Your task to perform on an android device: Open Google Maps Image 0: 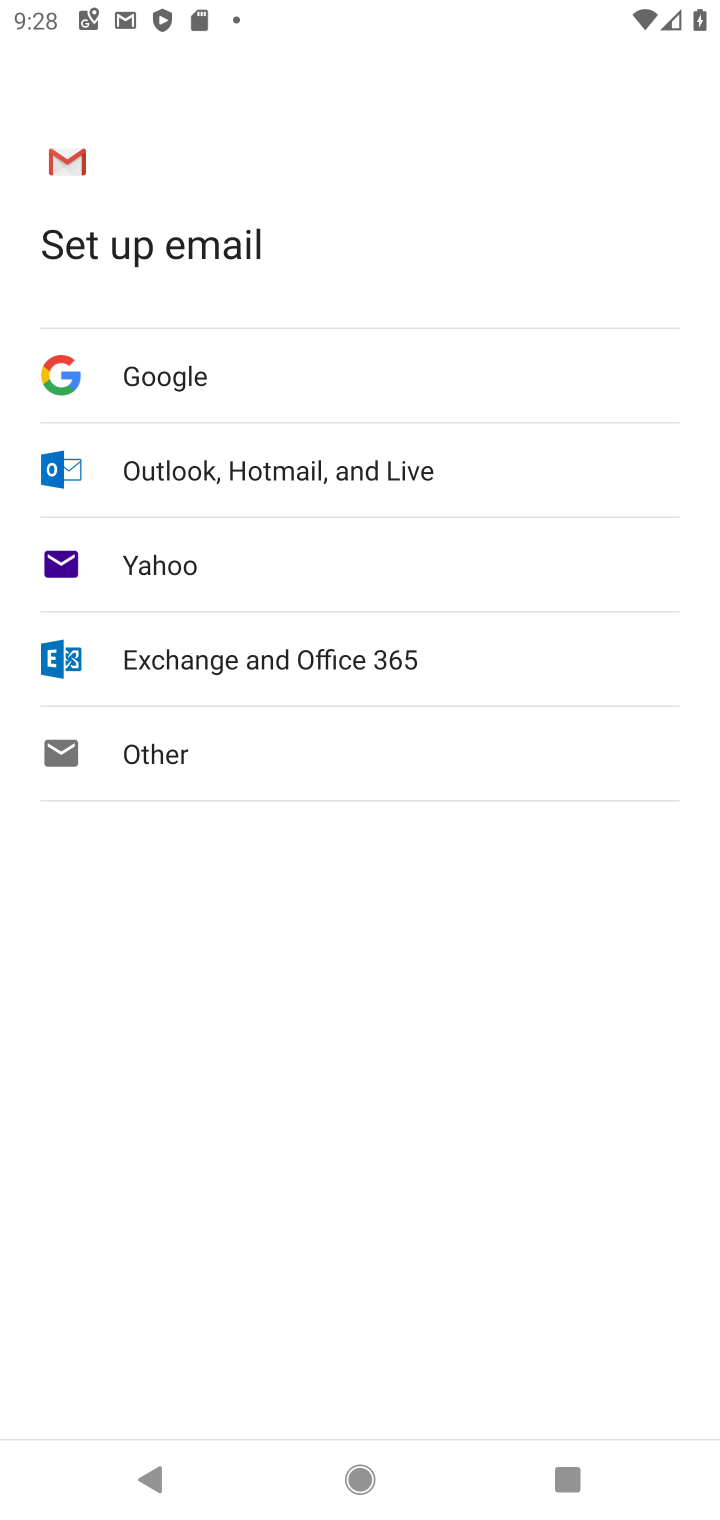
Step 0: press back button
Your task to perform on an android device: Open Google Maps Image 1: 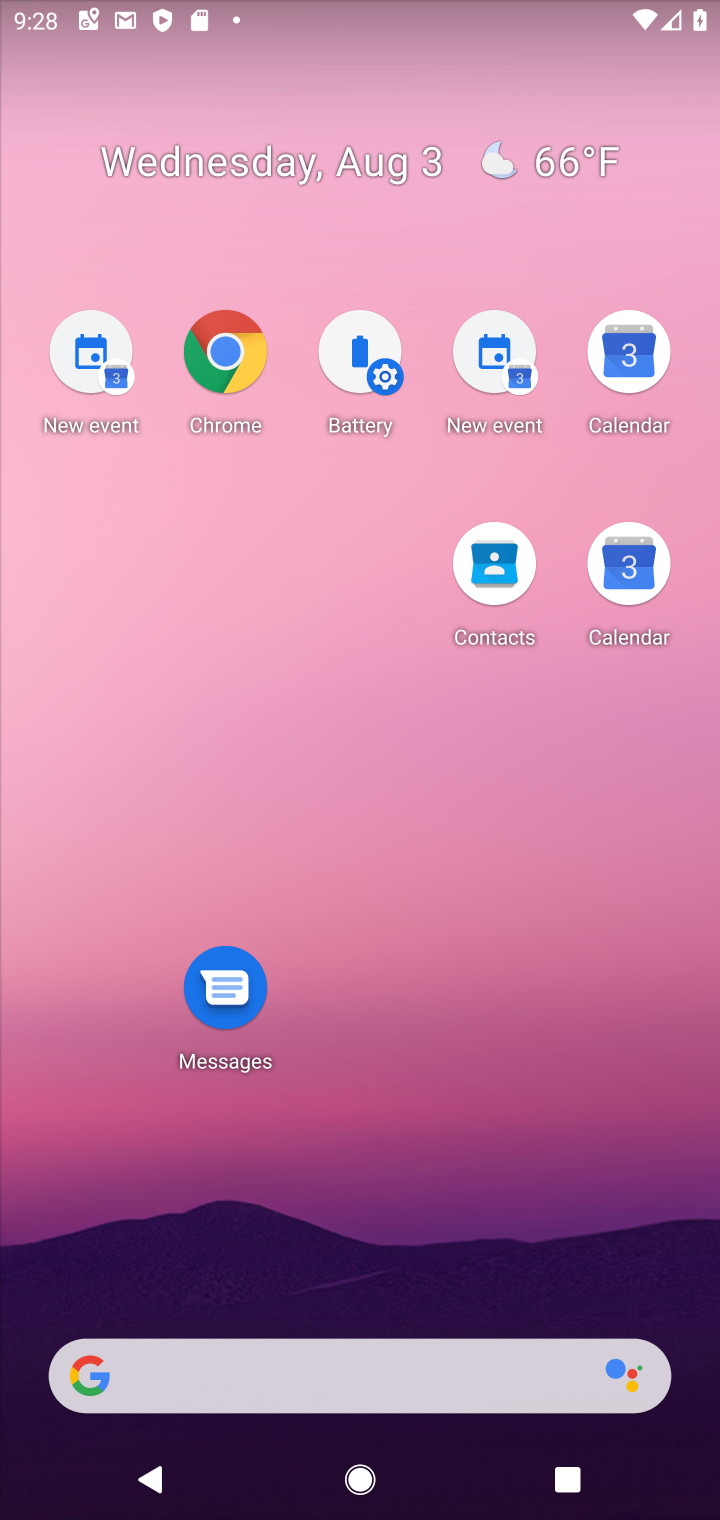
Step 1: drag from (380, 1369) to (296, 261)
Your task to perform on an android device: Open Google Maps Image 2: 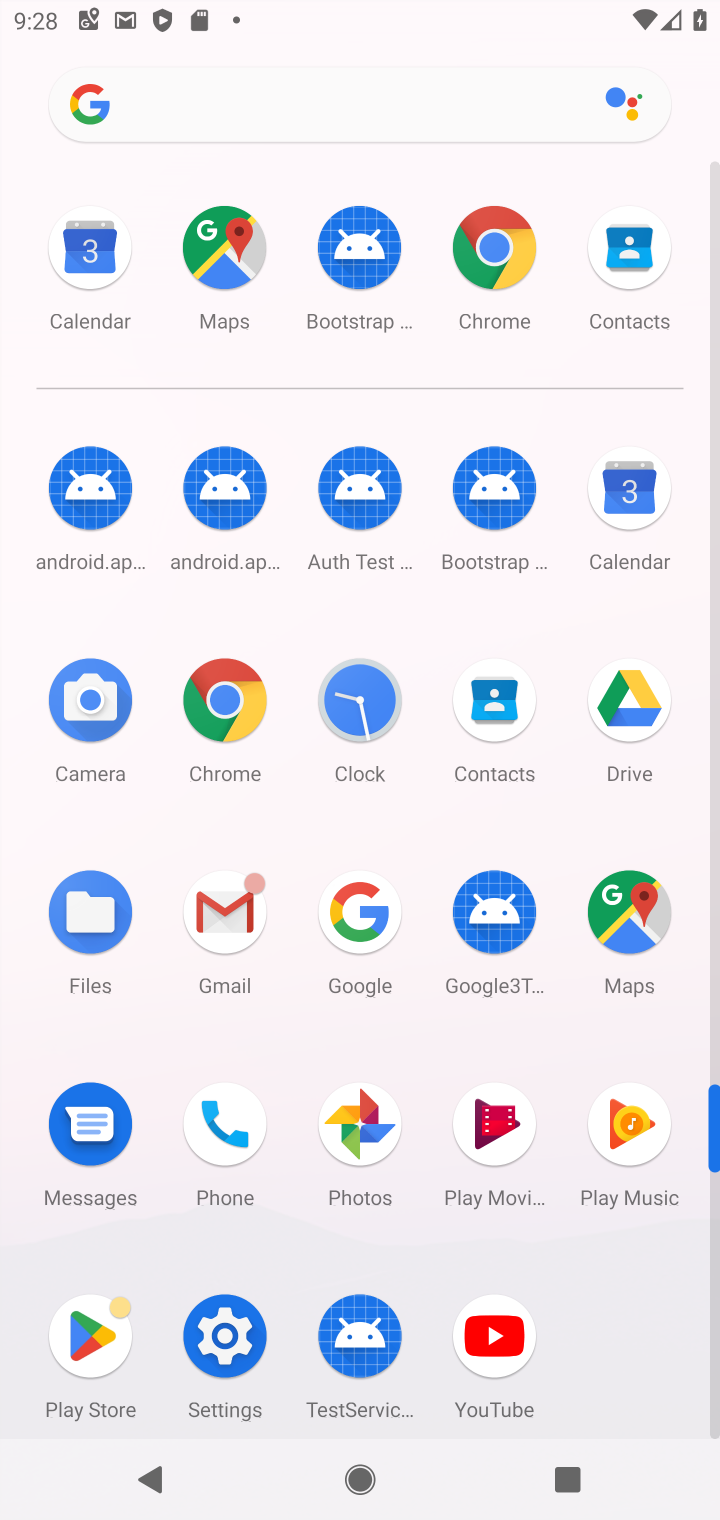
Step 2: drag from (236, 436) to (253, 11)
Your task to perform on an android device: Open Google Maps Image 3: 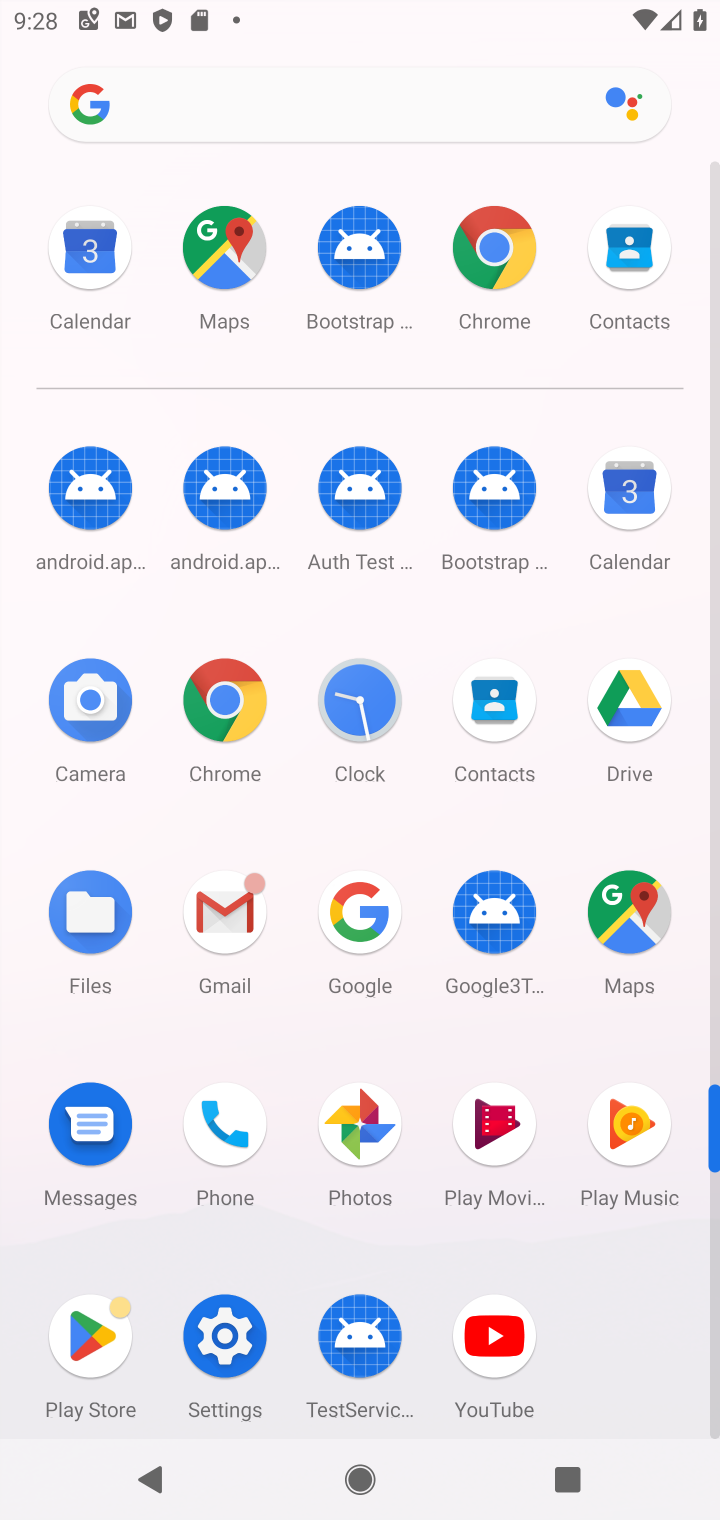
Step 3: click (599, 916)
Your task to perform on an android device: Open Google Maps Image 4: 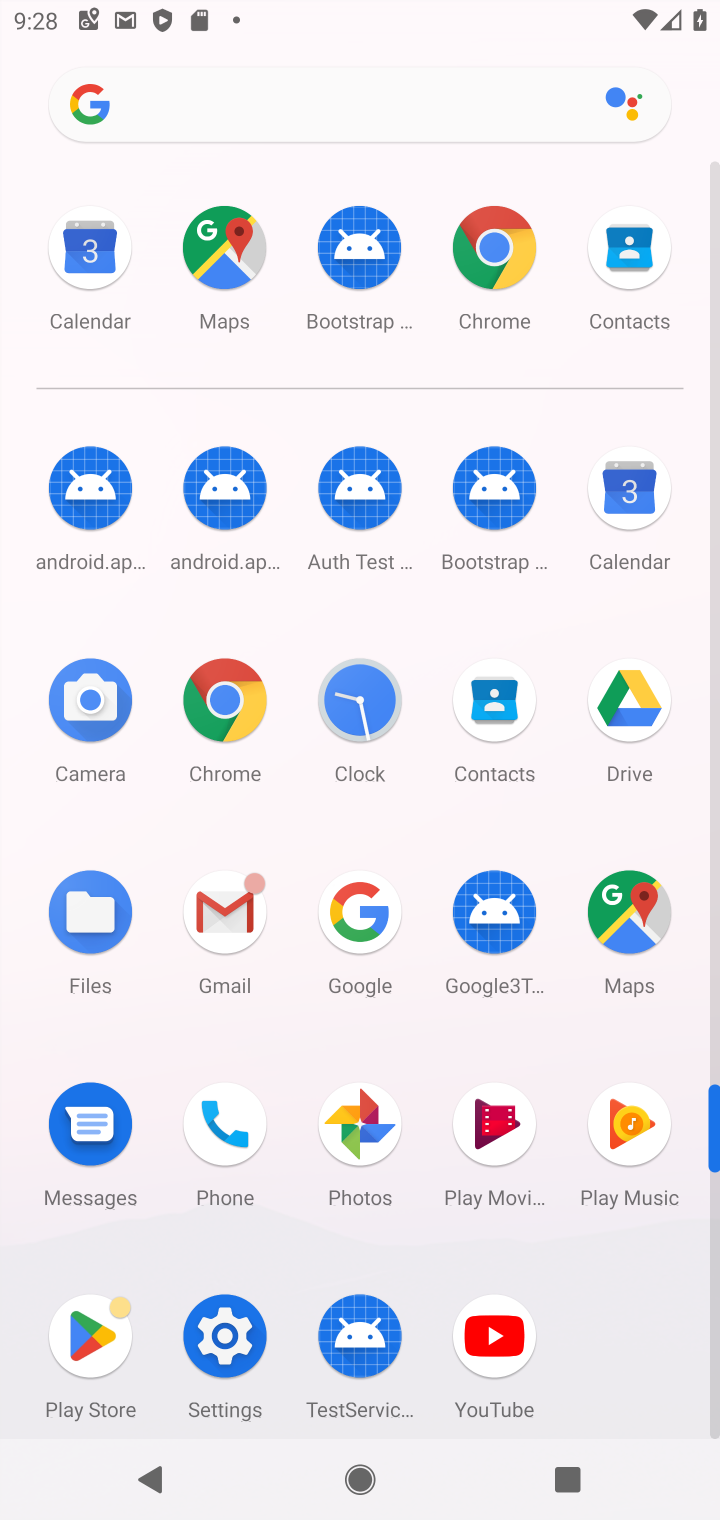
Step 4: click (599, 916)
Your task to perform on an android device: Open Google Maps Image 5: 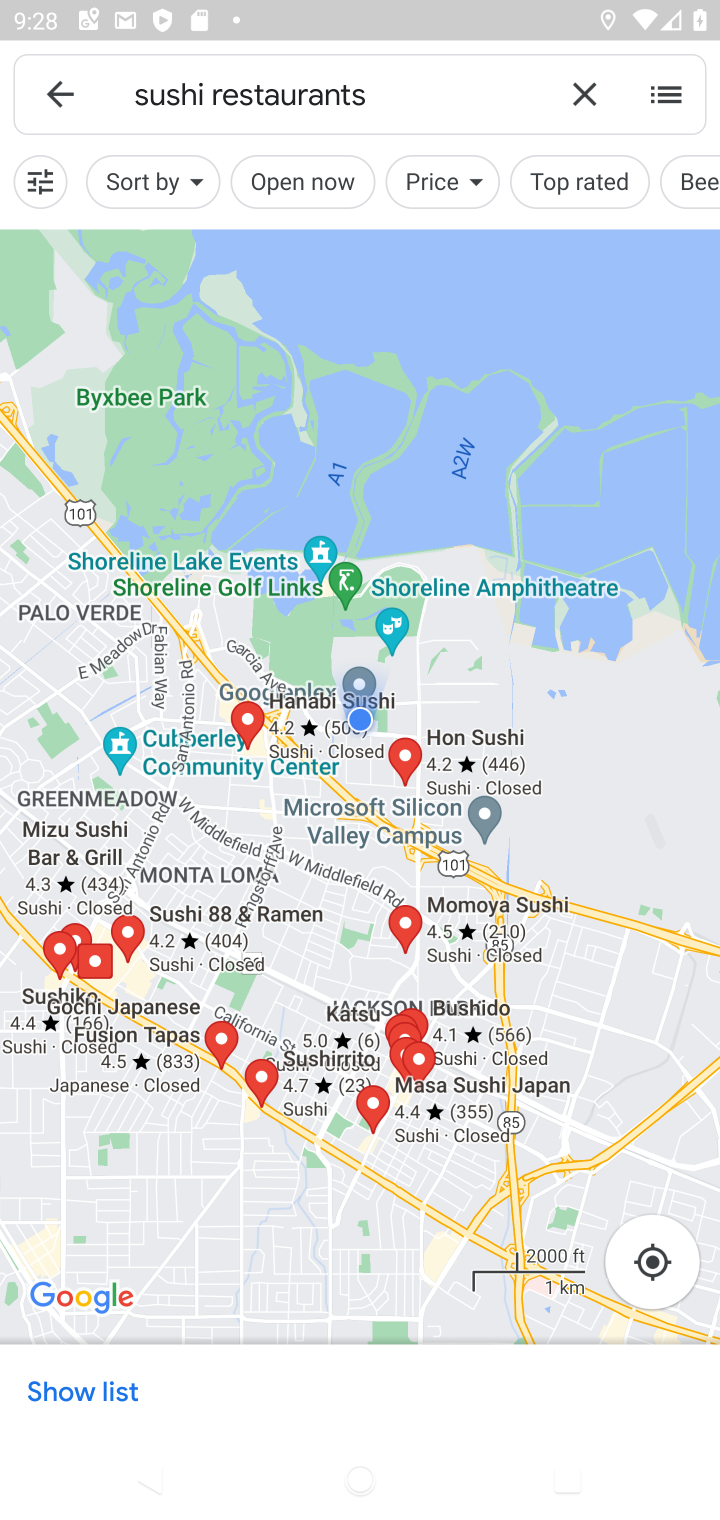
Step 5: task complete